Your task to perform on an android device: Go to Reddit.com Image 0: 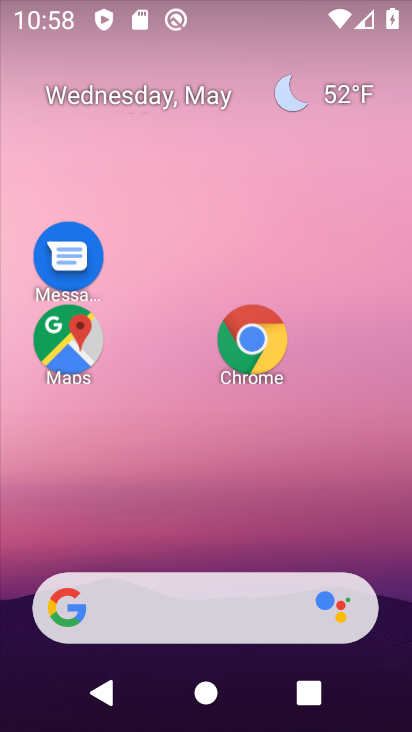
Step 0: drag from (194, 531) to (178, 116)
Your task to perform on an android device: Go to Reddit.com Image 1: 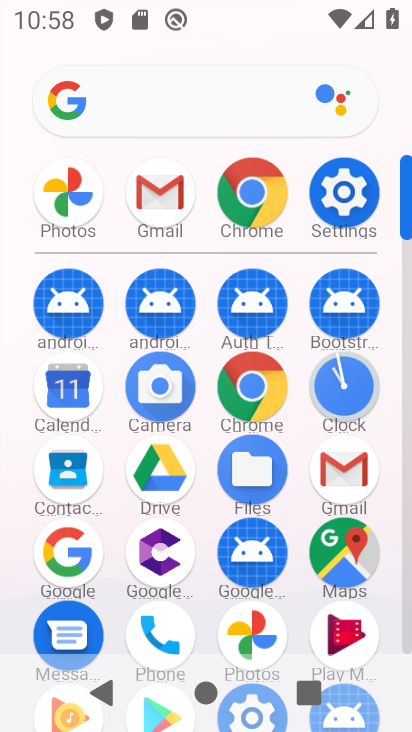
Step 1: click (66, 555)
Your task to perform on an android device: Go to Reddit.com Image 2: 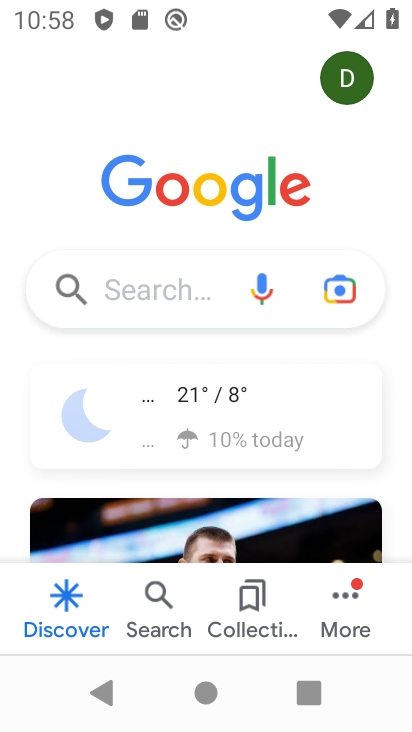
Step 2: click (165, 286)
Your task to perform on an android device: Go to Reddit.com Image 3: 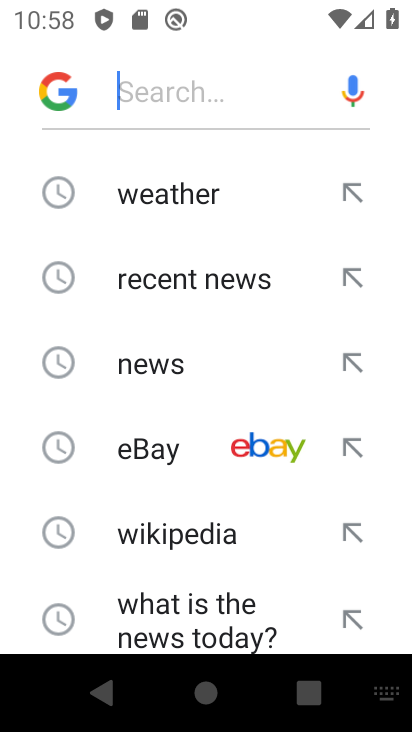
Step 3: drag from (215, 538) to (205, 168)
Your task to perform on an android device: Go to Reddit.com Image 4: 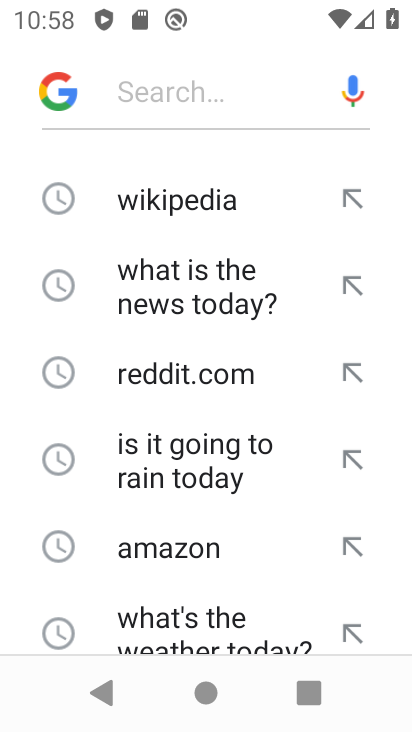
Step 4: click (178, 376)
Your task to perform on an android device: Go to Reddit.com Image 5: 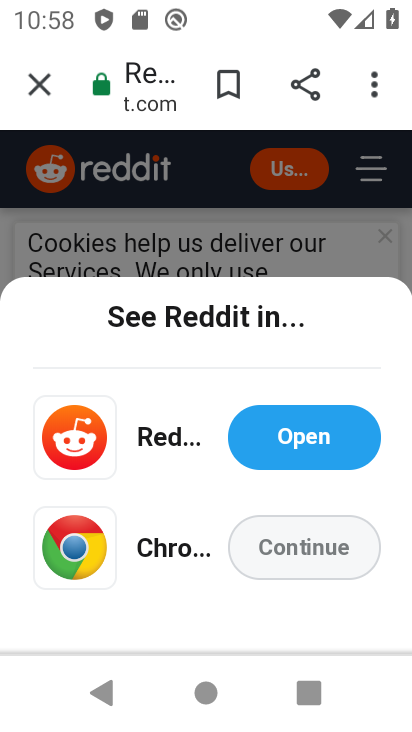
Step 5: task complete